Your task to perform on an android device: turn on sleep mode Image 0: 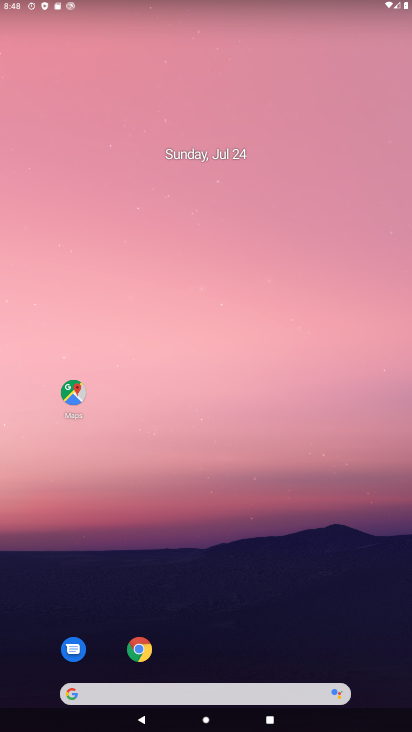
Step 0: drag from (101, 557) to (206, 298)
Your task to perform on an android device: turn on sleep mode Image 1: 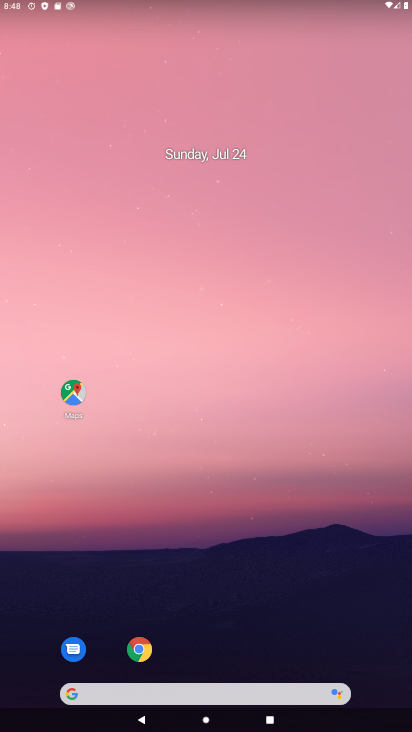
Step 1: drag from (42, 626) to (232, 172)
Your task to perform on an android device: turn on sleep mode Image 2: 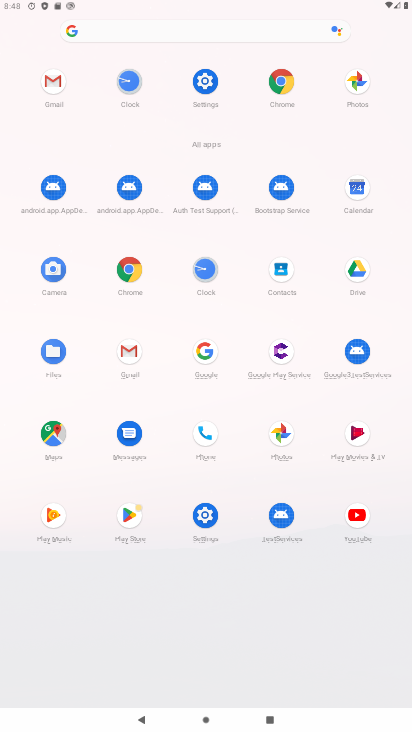
Step 2: click (215, 509)
Your task to perform on an android device: turn on sleep mode Image 3: 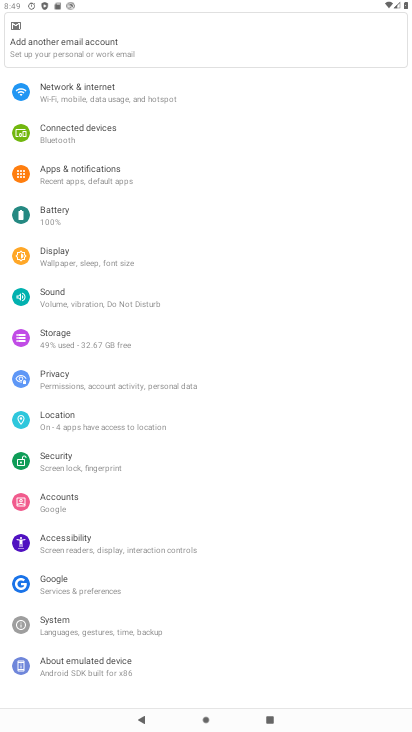
Step 3: task complete